Your task to perform on an android device: Show me recent news Image 0: 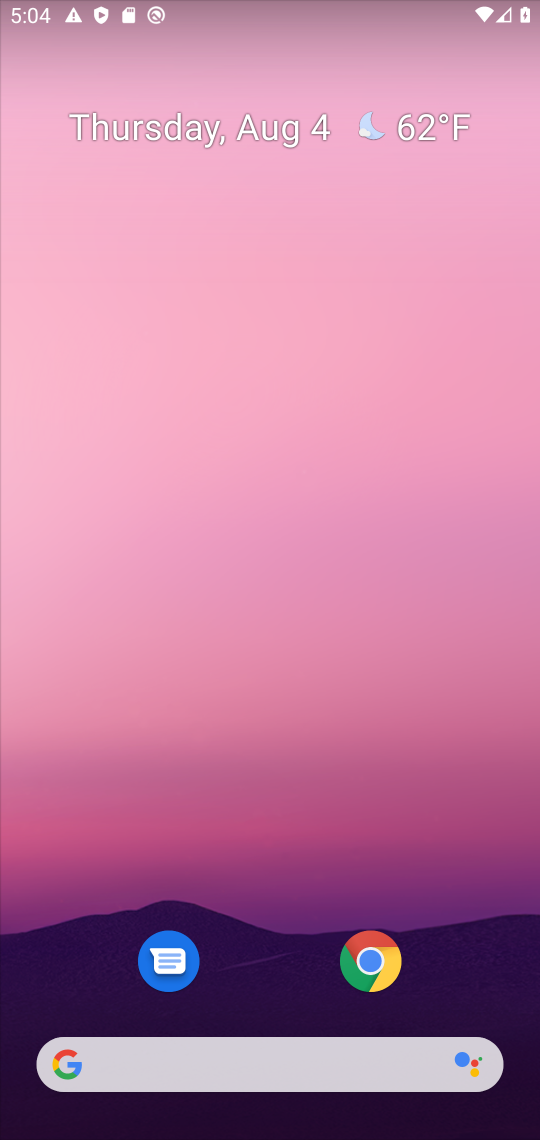
Step 0: drag from (467, 937) to (435, 353)
Your task to perform on an android device: Show me recent news Image 1: 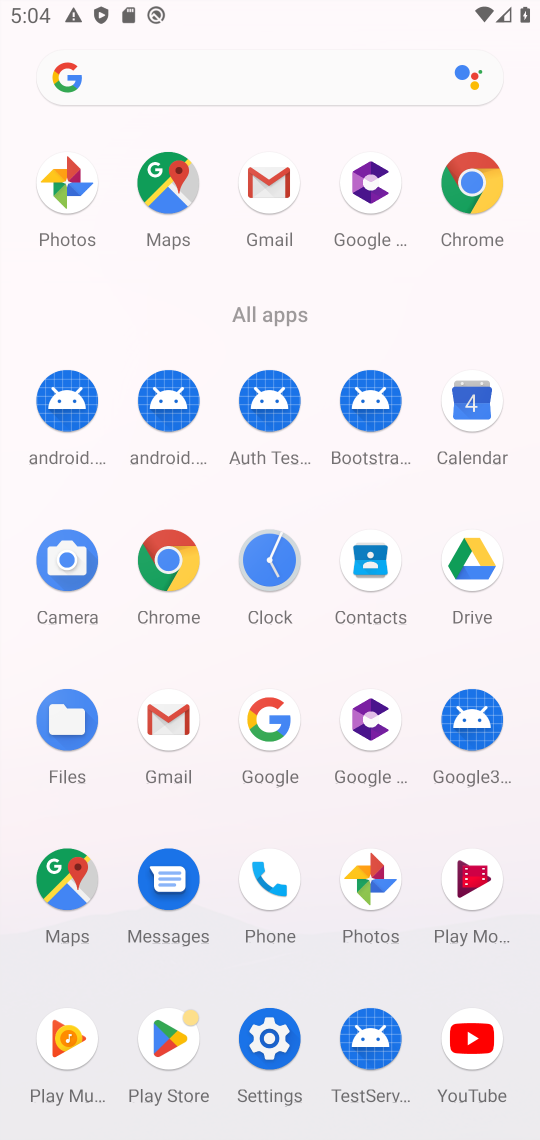
Step 1: drag from (323, 842) to (312, 428)
Your task to perform on an android device: Show me recent news Image 2: 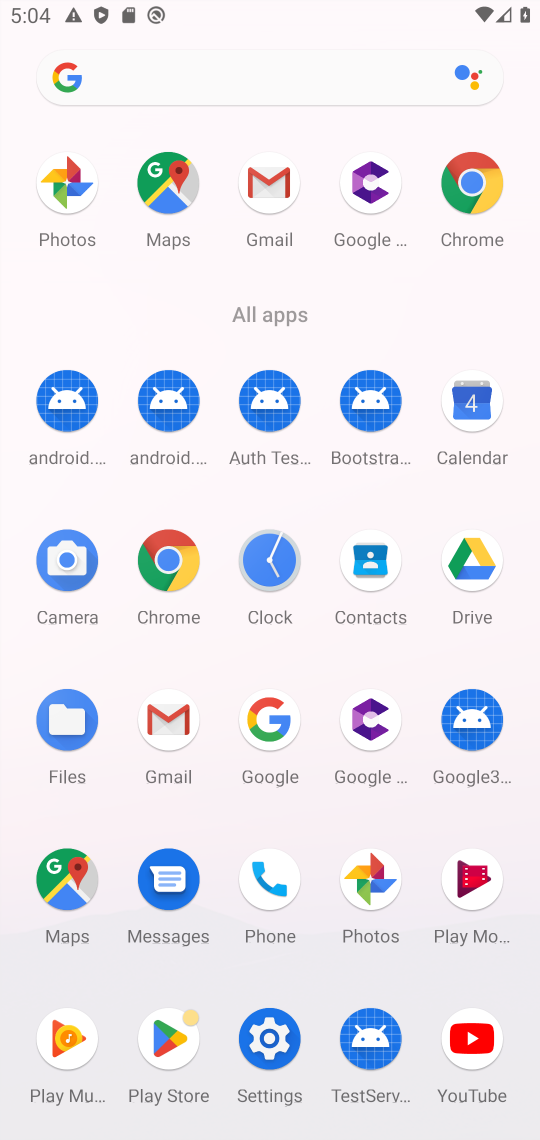
Step 2: click (280, 736)
Your task to perform on an android device: Show me recent news Image 3: 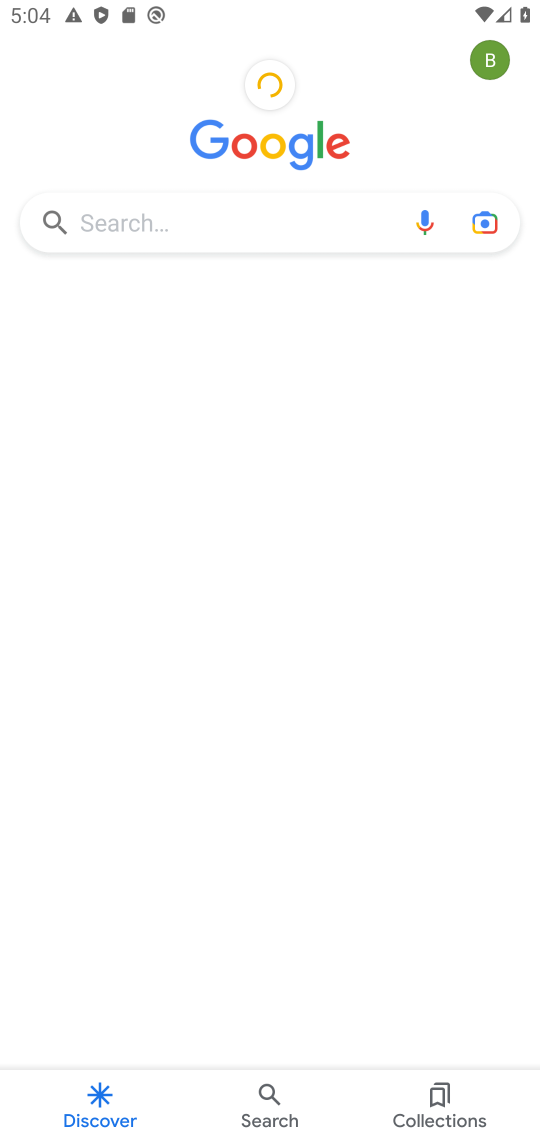
Step 3: click (237, 235)
Your task to perform on an android device: Show me recent news Image 4: 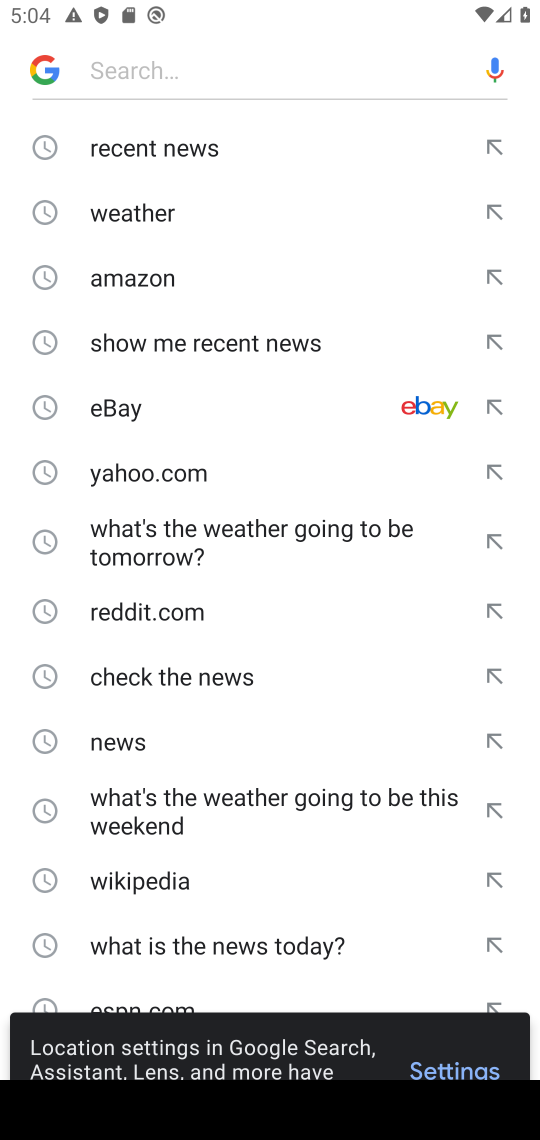
Step 4: click (231, 155)
Your task to perform on an android device: Show me recent news Image 5: 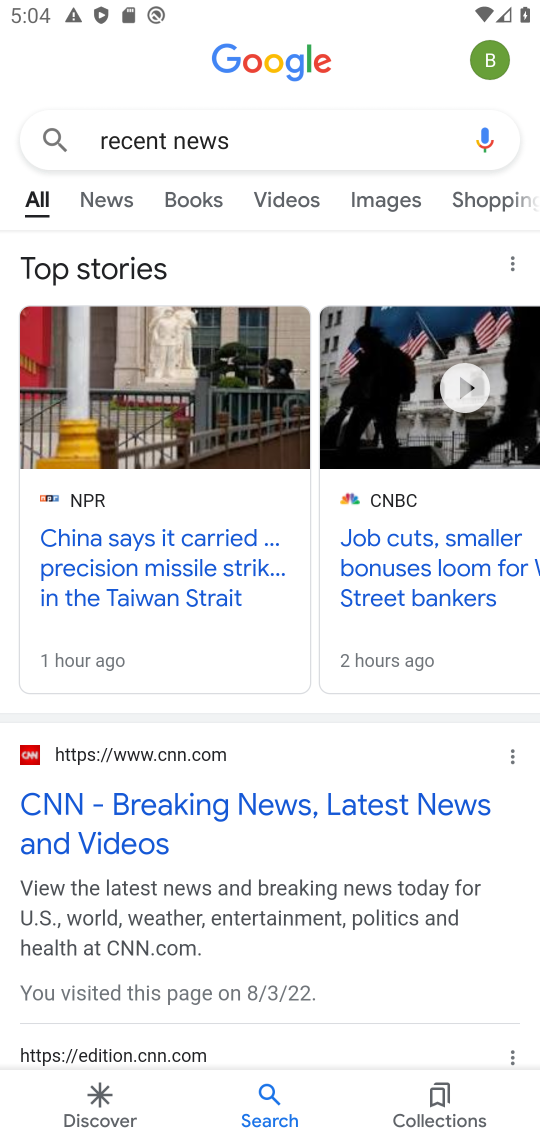
Step 5: task complete